Your task to perform on an android device: check android version Image 0: 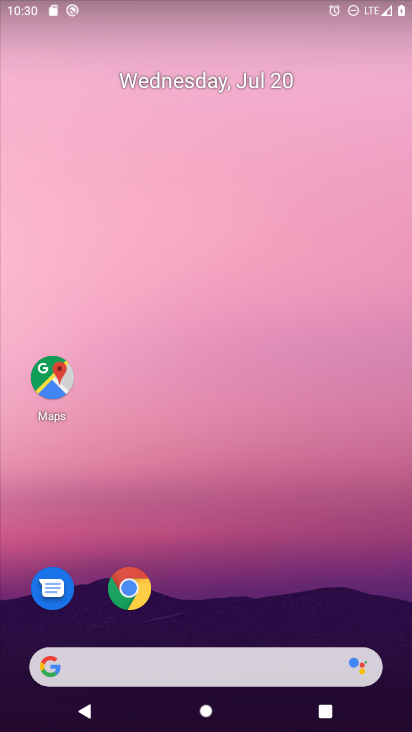
Step 0: drag from (201, 614) to (295, 46)
Your task to perform on an android device: check android version Image 1: 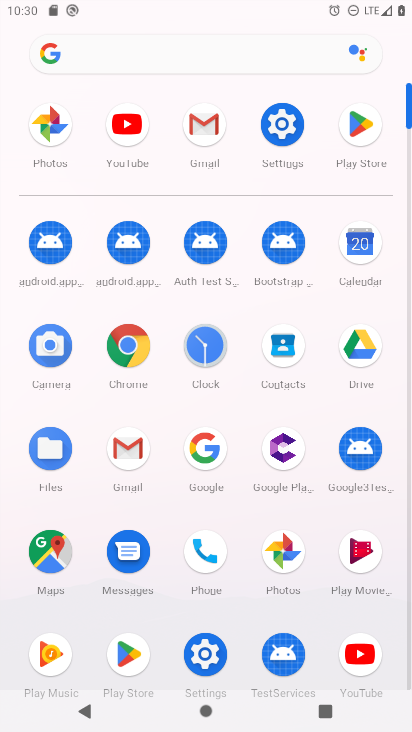
Step 1: click (282, 130)
Your task to perform on an android device: check android version Image 2: 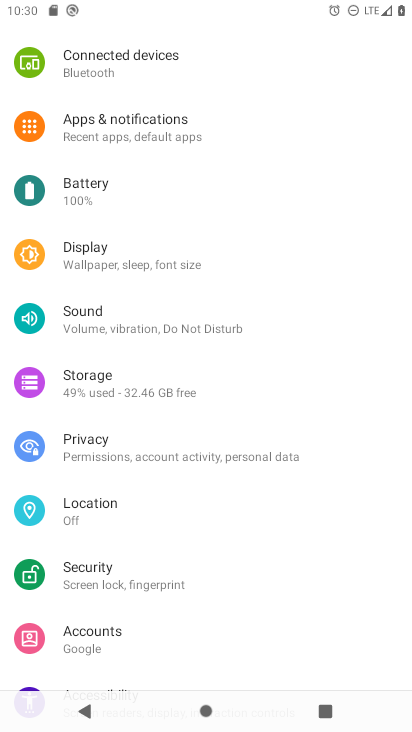
Step 2: drag from (141, 653) to (142, 112)
Your task to perform on an android device: check android version Image 3: 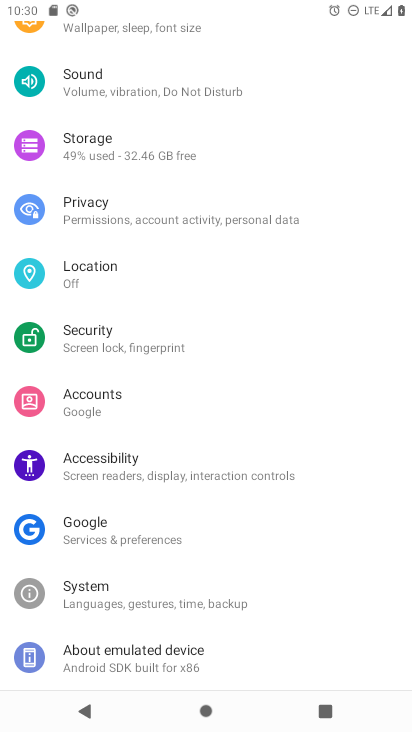
Step 3: drag from (126, 661) to (168, 114)
Your task to perform on an android device: check android version Image 4: 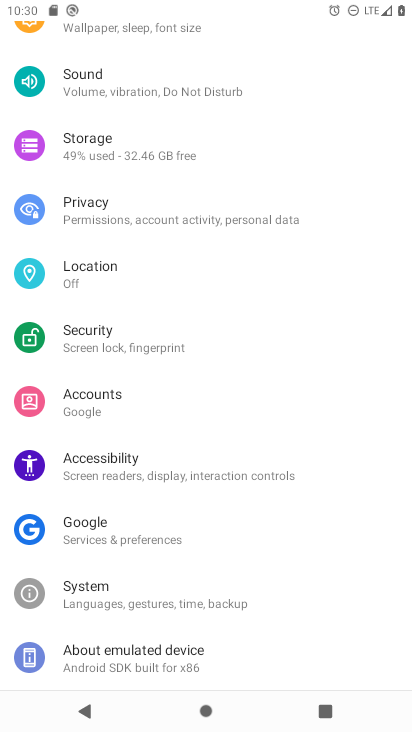
Step 4: click (147, 675)
Your task to perform on an android device: check android version Image 5: 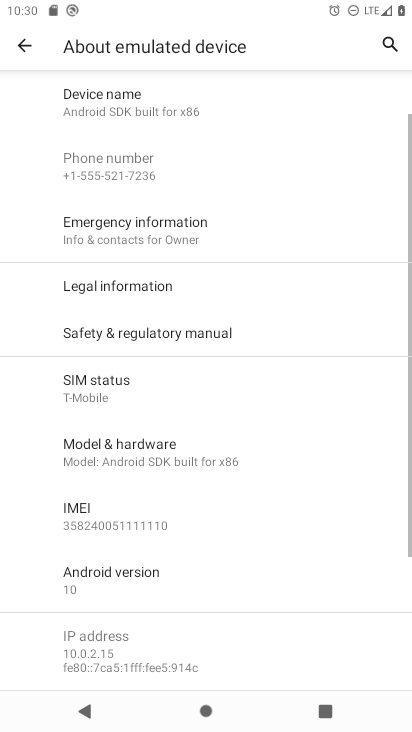
Step 5: click (113, 586)
Your task to perform on an android device: check android version Image 6: 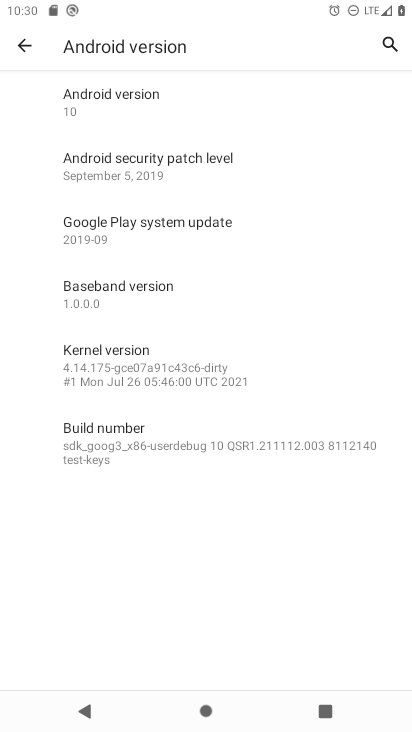
Step 6: task complete